Your task to perform on an android device: Go to Android settings Image 0: 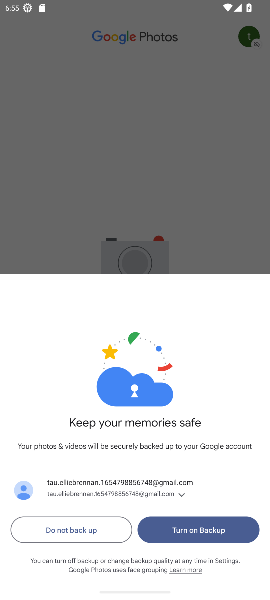
Step 0: drag from (59, 400) to (92, 155)
Your task to perform on an android device: Go to Android settings Image 1: 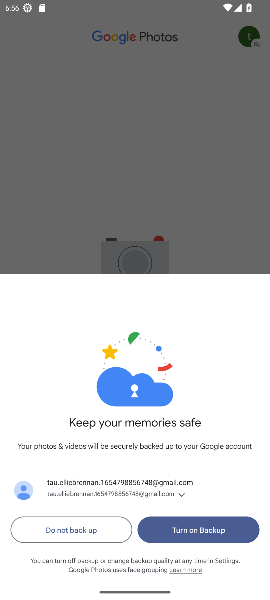
Step 1: click (112, 212)
Your task to perform on an android device: Go to Android settings Image 2: 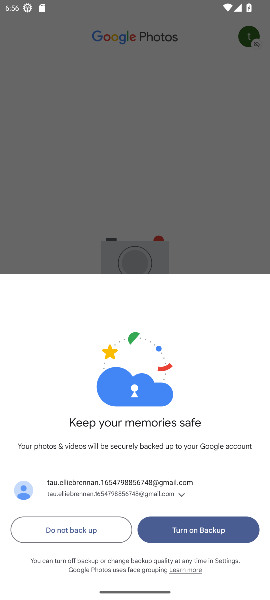
Step 2: click (75, 528)
Your task to perform on an android device: Go to Android settings Image 3: 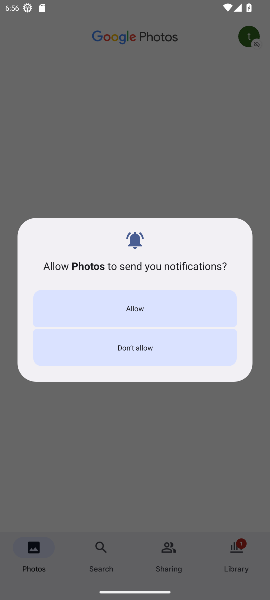
Step 3: click (132, 351)
Your task to perform on an android device: Go to Android settings Image 4: 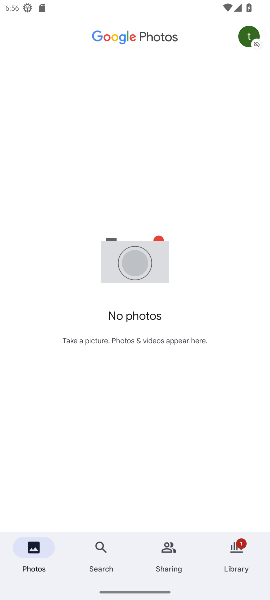
Step 4: task complete